Your task to perform on an android device: What's on my calendar today? Image 0: 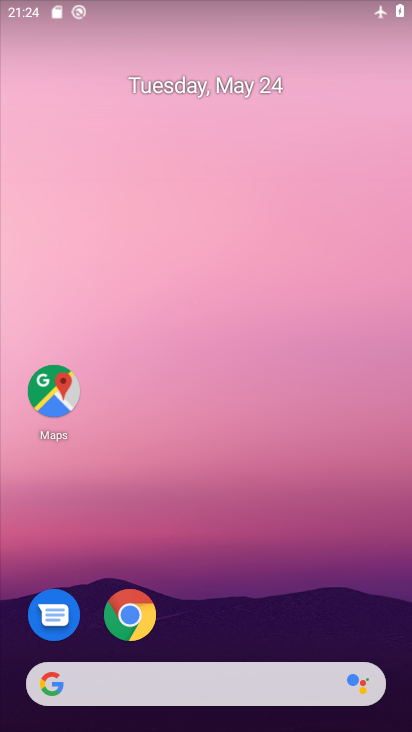
Step 0: drag from (233, 539) to (252, 216)
Your task to perform on an android device: What's on my calendar today? Image 1: 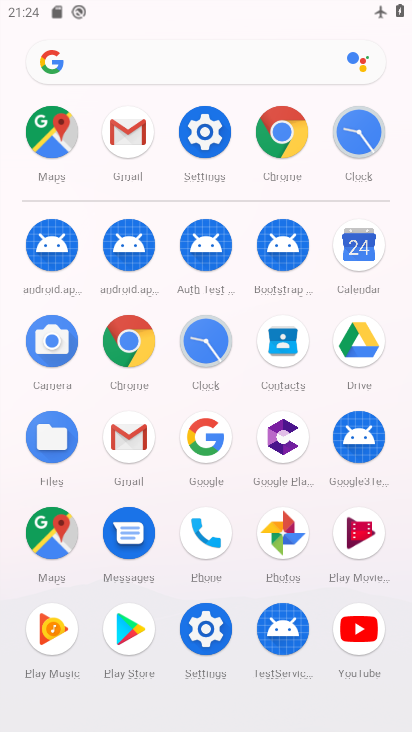
Step 1: click (348, 241)
Your task to perform on an android device: What's on my calendar today? Image 2: 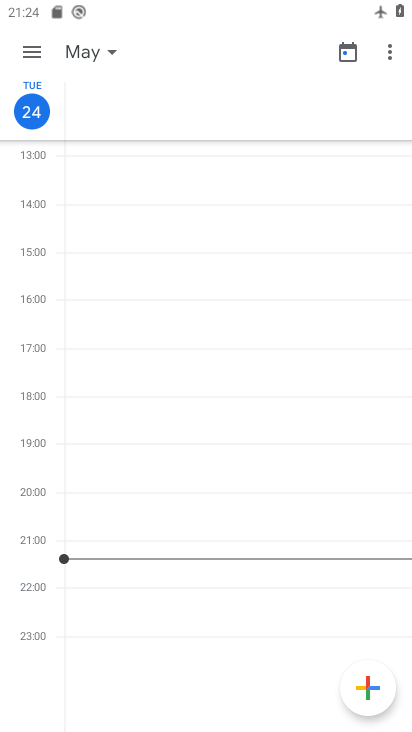
Step 2: drag from (181, 542) to (241, 195)
Your task to perform on an android device: What's on my calendar today? Image 3: 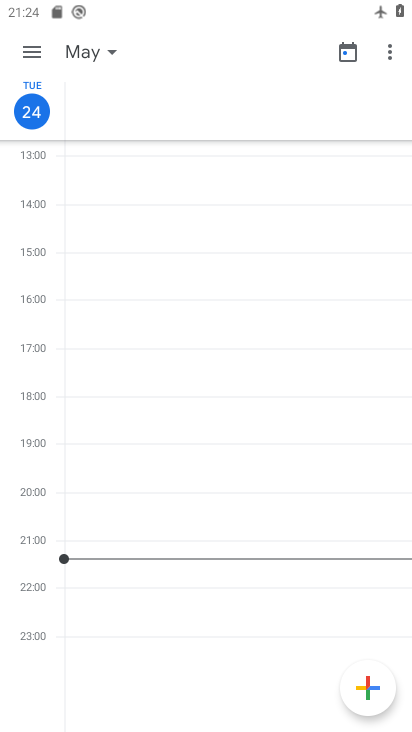
Step 3: click (17, 39)
Your task to perform on an android device: What's on my calendar today? Image 4: 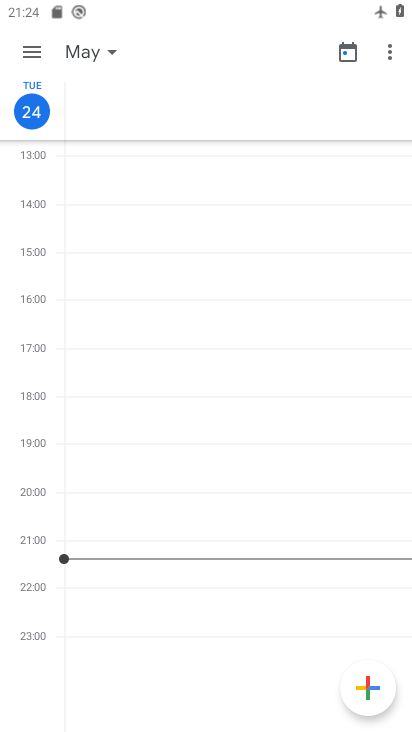
Step 4: click (28, 50)
Your task to perform on an android device: What's on my calendar today? Image 5: 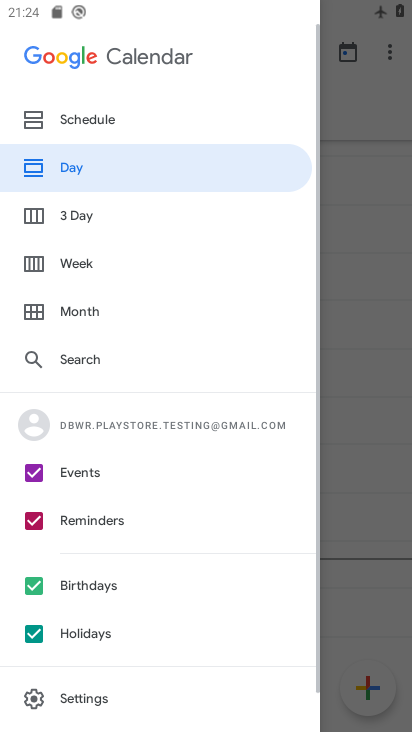
Step 5: click (28, 50)
Your task to perform on an android device: What's on my calendar today? Image 6: 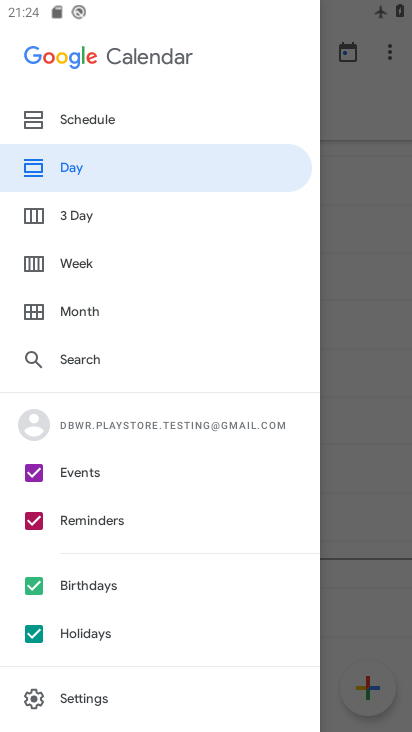
Step 6: click (77, 321)
Your task to perform on an android device: What's on my calendar today? Image 7: 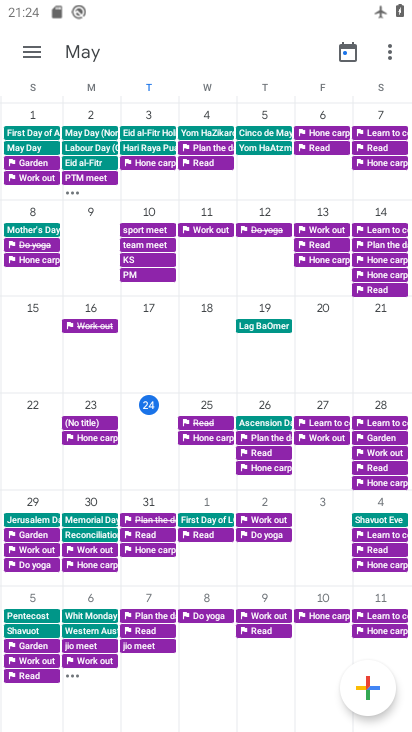
Step 7: click (206, 411)
Your task to perform on an android device: What's on my calendar today? Image 8: 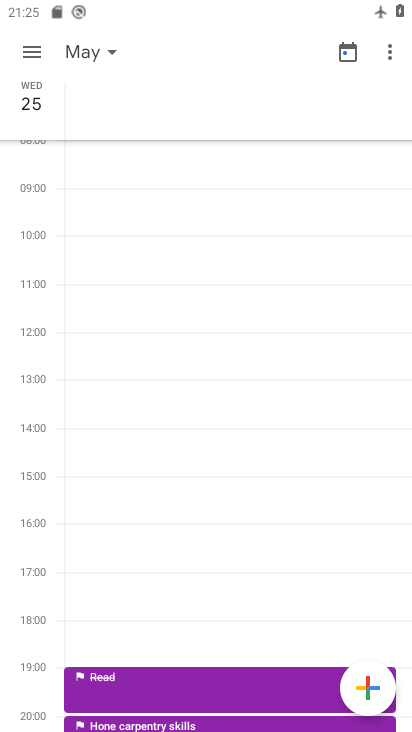
Step 8: task complete